Your task to perform on an android device: Search for sushi restaurants on Maps Image 0: 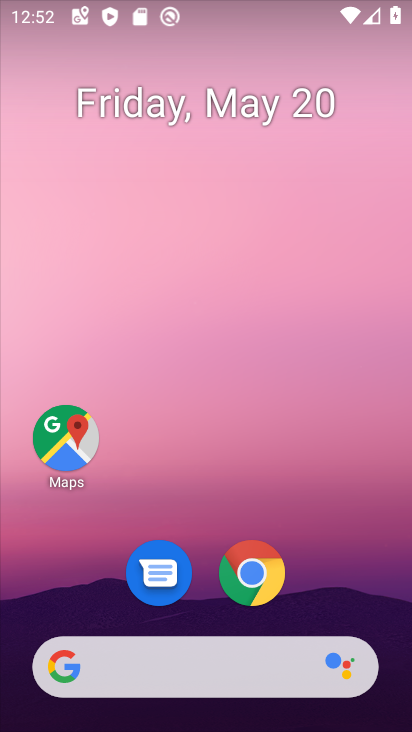
Step 0: drag from (220, 722) to (196, 125)
Your task to perform on an android device: Search for sushi restaurants on Maps Image 1: 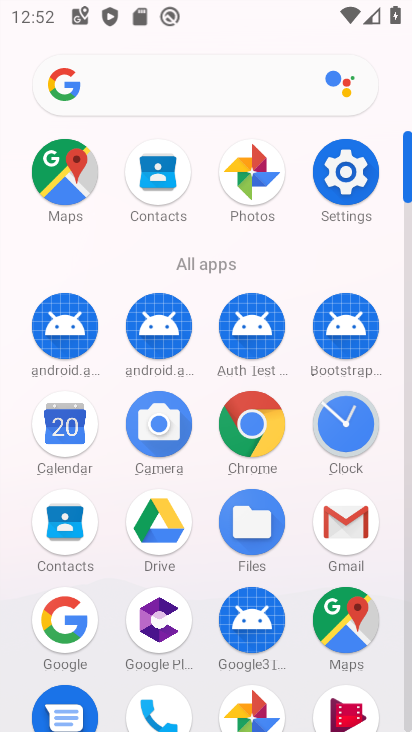
Step 1: click (349, 629)
Your task to perform on an android device: Search for sushi restaurants on Maps Image 2: 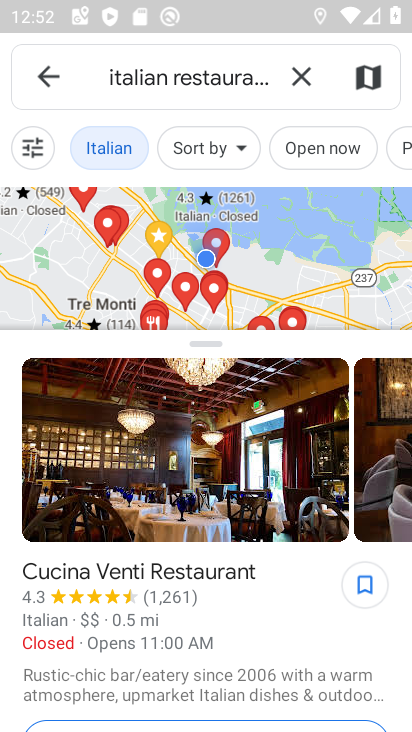
Step 2: click (305, 72)
Your task to perform on an android device: Search for sushi restaurants on Maps Image 3: 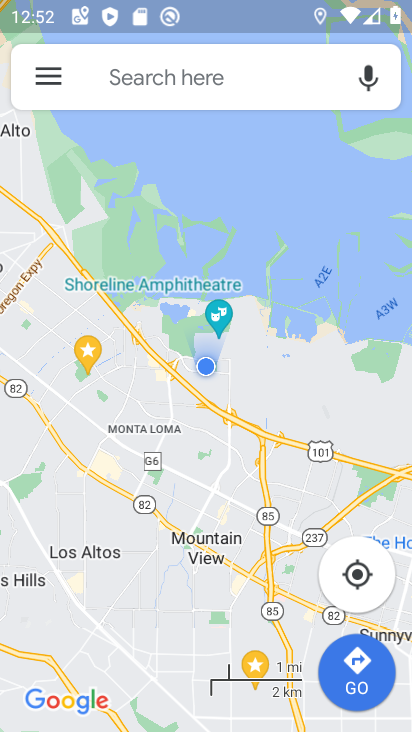
Step 3: click (193, 82)
Your task to perform on an android device: Search for sushi restaurants on Maps Image 4: 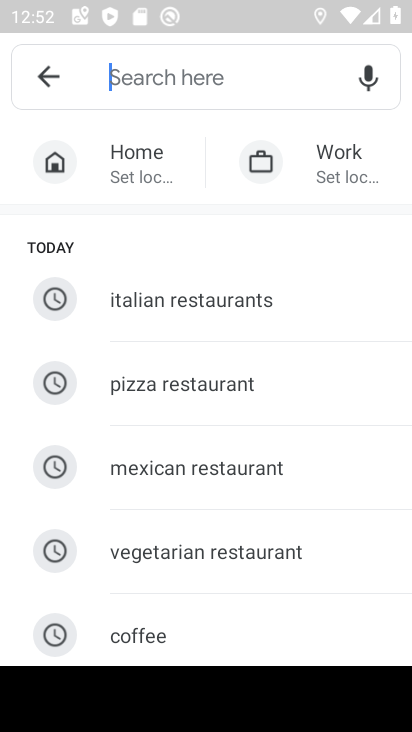
Step 4: type "sushi restaurants"
Your task to perform on an android device: Search for sushi restaurants on Maps Image 5: 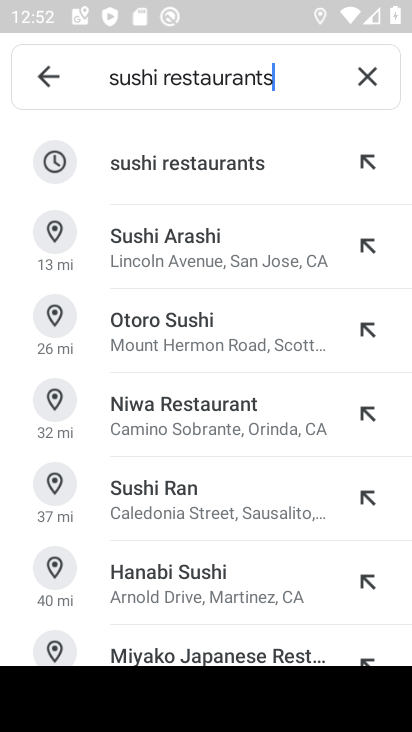
Step 5: click (155, 168)
Your task to perform on an android device: Search for sushi restaurants on Maps Image 6: 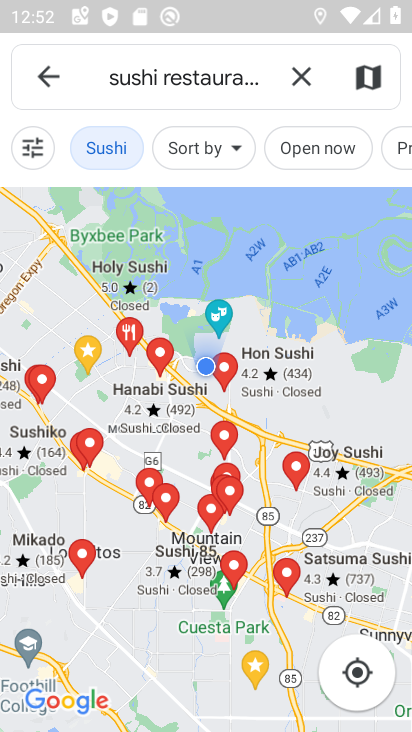
Step 6: task complete